Your task to perform on an android device: change the clock display to digital Image 0: 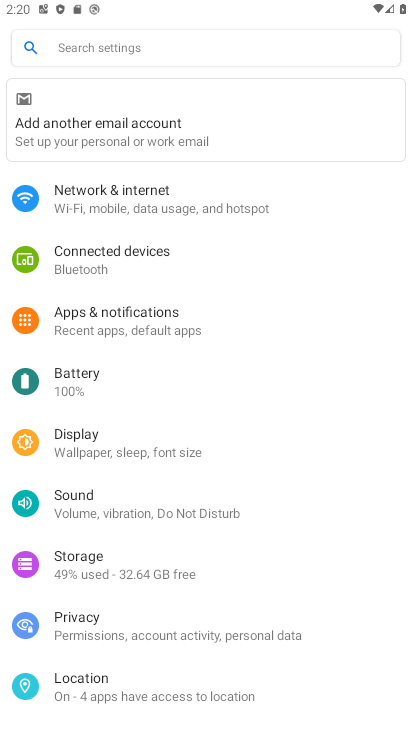
Step 0: press home button
Your task to perform on an android device: change the clock display to digital Image 1: 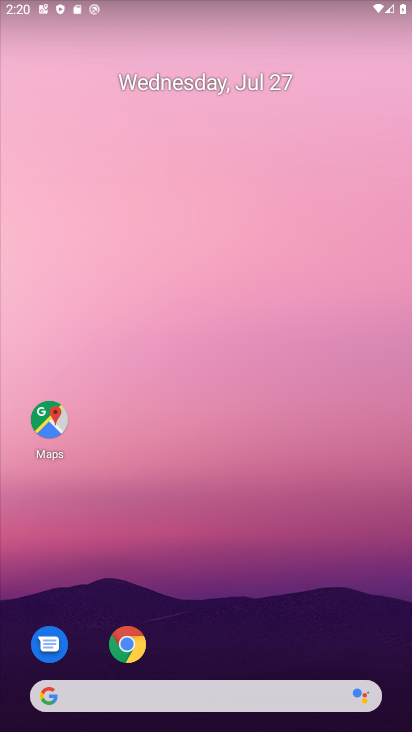
Step 1: drag from (254, 657) to (247, 116)
Your task to perform on an android device: change the clock display to digital Image 2: 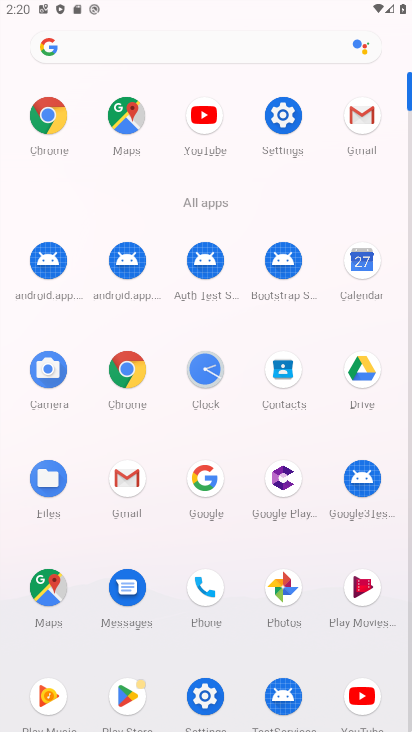
Step 2: click (206, 371)
Your task to perform on an android device: change the clock display to digital Image 3: 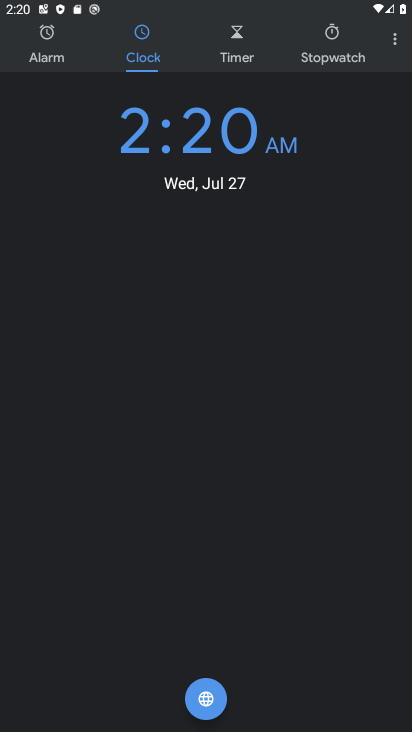
Step 3: click (402, 51)
Your task to perform on an android device: change the clock display to digital Image 4: 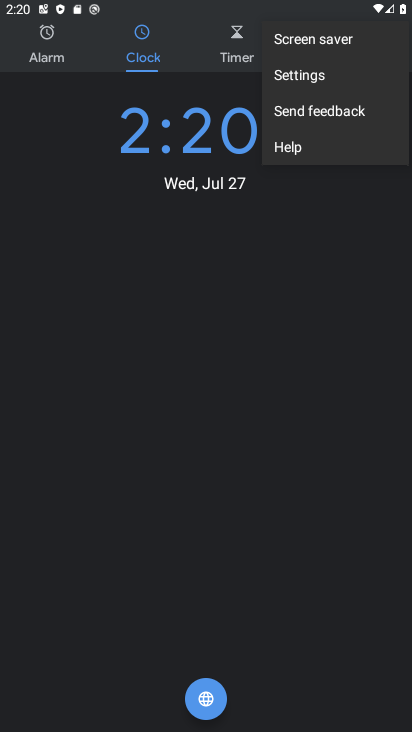
Step 4: click (338, 72)
Your task to perform on an android device: change the clock display to digital Image 5: 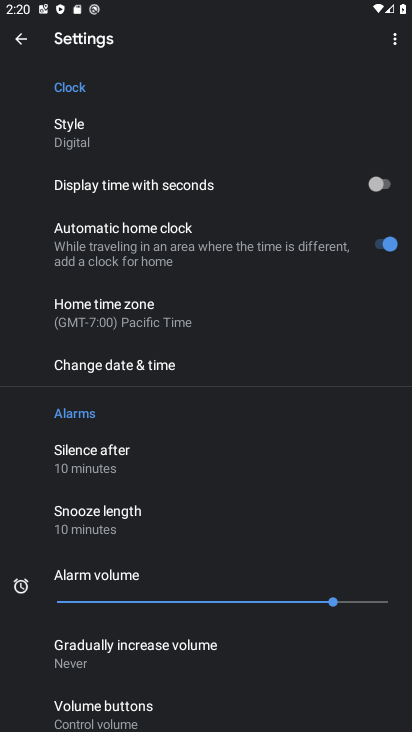
Step 5: click (183, 145)
Your task to perform on an android device: change the clock display to digital Image 6: 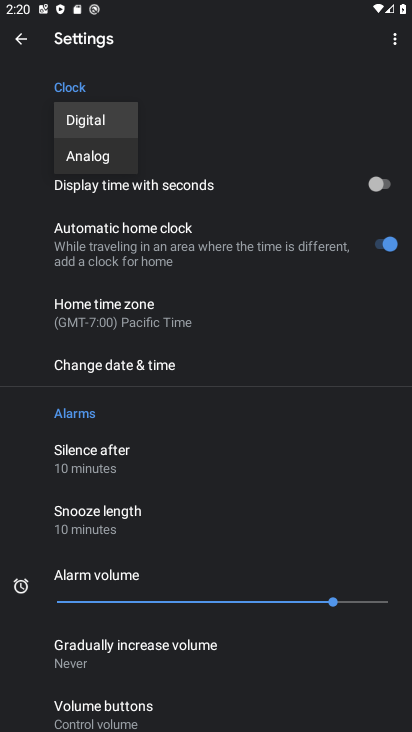
Step 6: task complete